Your task to perform on an android device: Open internet settings Image 0: 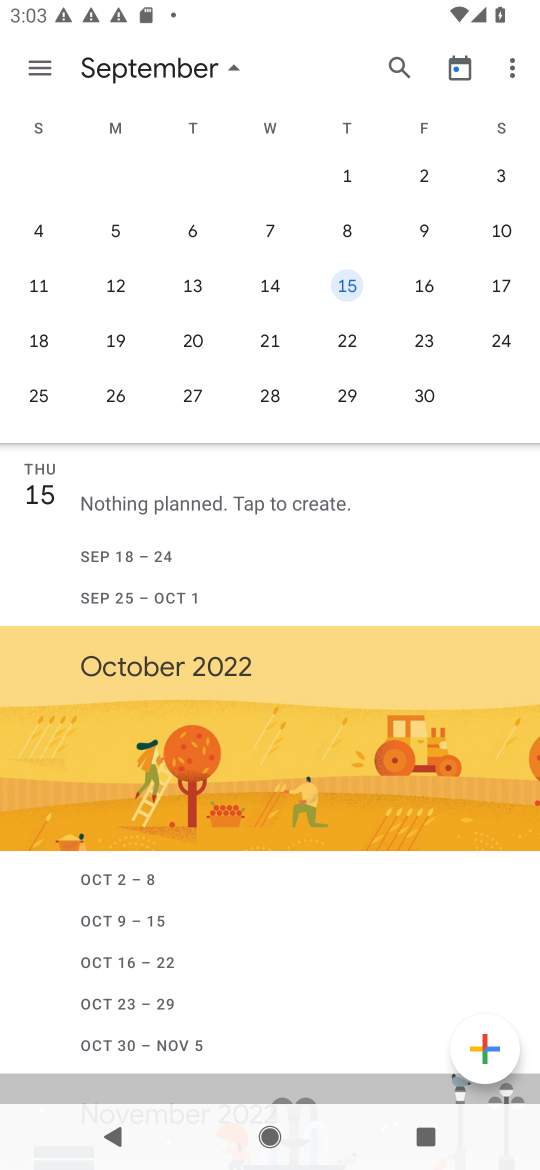
Step 0: drag from (241, 7) to (303, 835)
Your task to perform on an android device: Open internet settings Image 1: 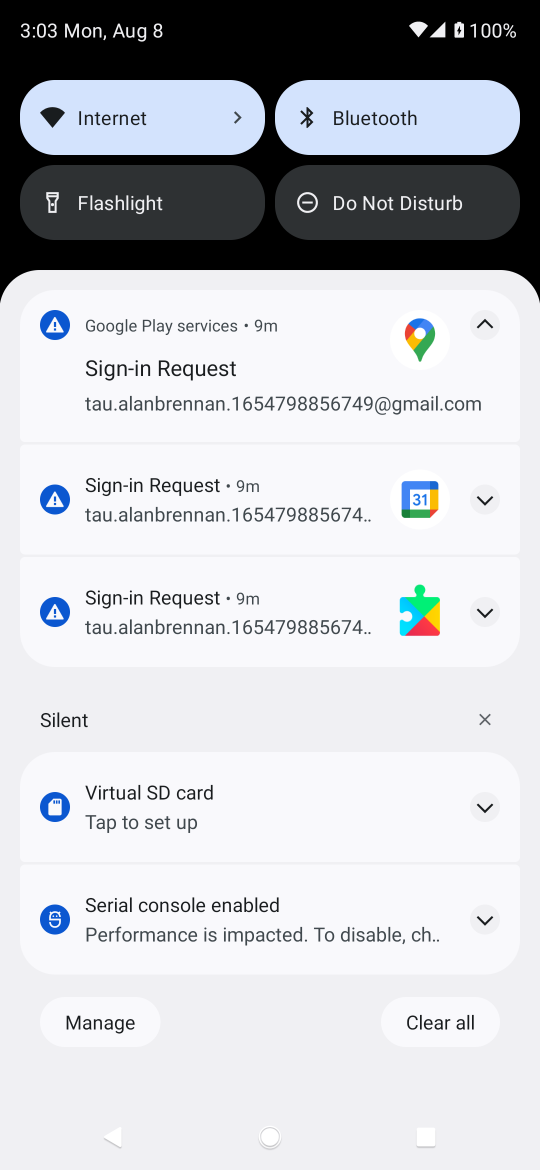
Step 1: click (189, 143)
Your task to perform on an android device: Open internet settings Image 2: 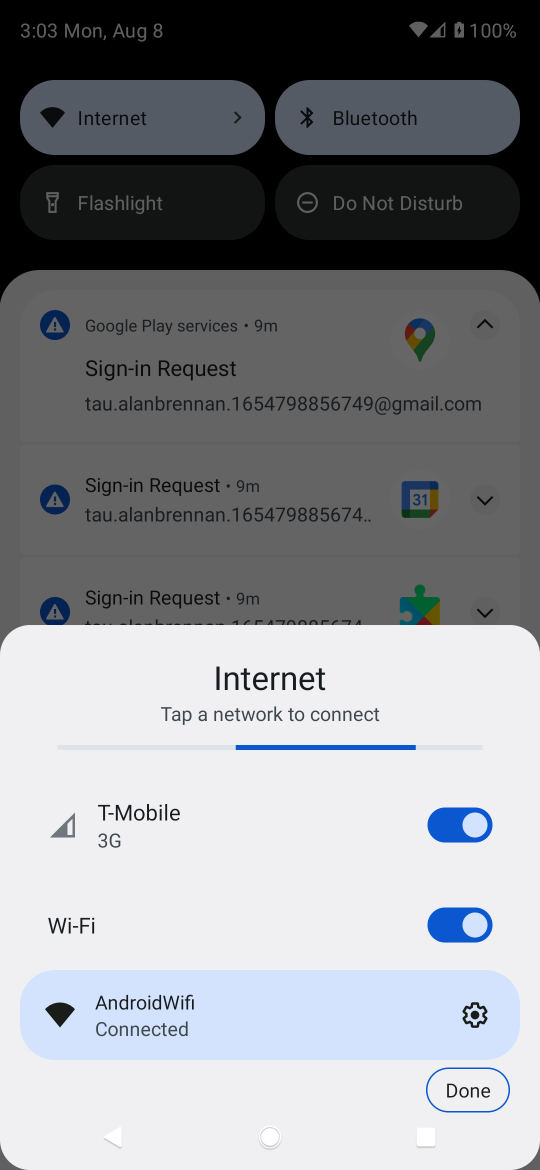
Step 2: click (473, 1021)
Your task to perform on an android device: Open internet settings Image 3: 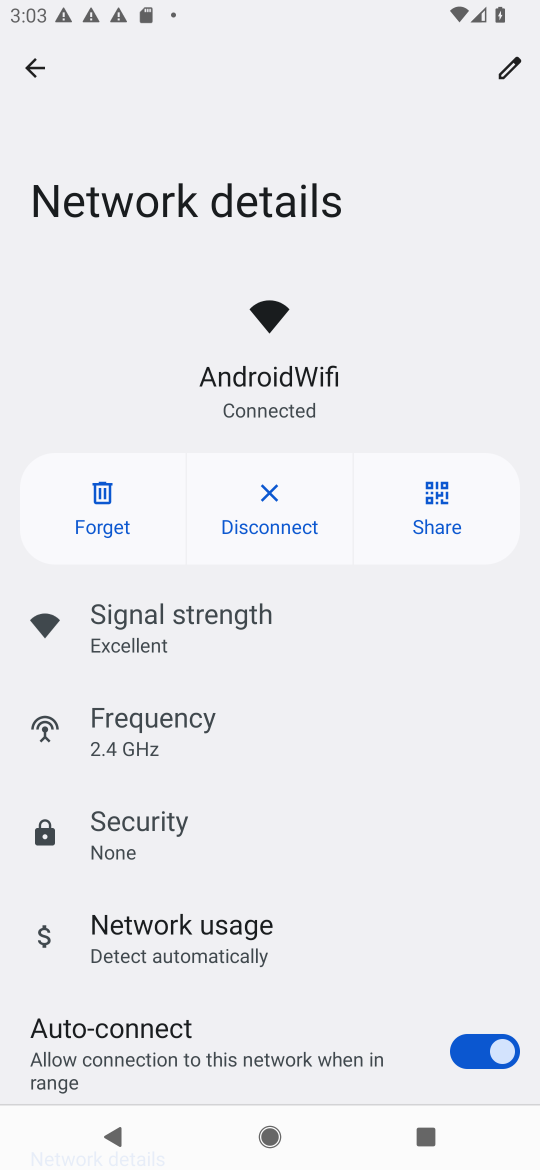
Step 3: task complete